Your task to perform on an android device: What is the news today? Image 0: 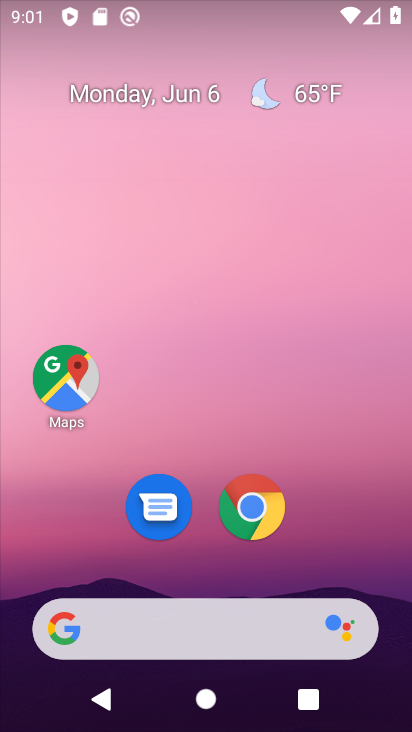
Step 0: drag from (279, 543) to (282, 196)
Your task to perform on an android device: What is the news today? Image 1: 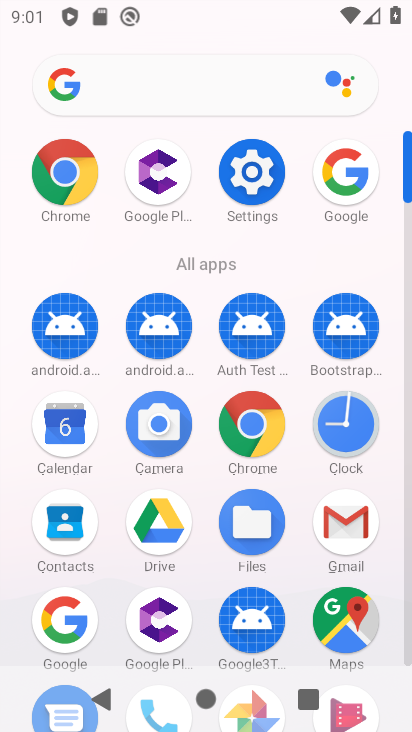
Step 1: click (57, 168)
Your task to perform on an android device: What is the news today? Image 2: 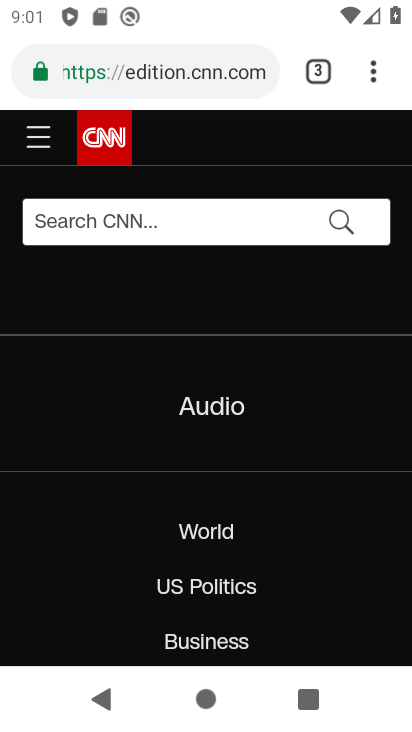
Step 2: click (371, 71)
Your task to perform on an android device: What is the news today? Image 3: 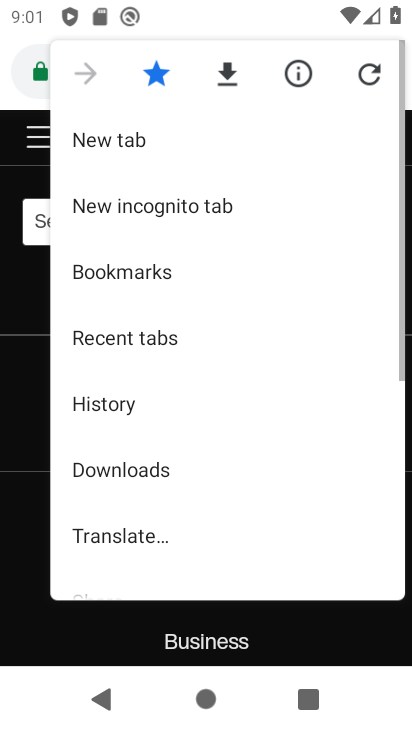
Step 3: click (121, 144)
Your task to perform on an android device: What is the news today? Image 4: 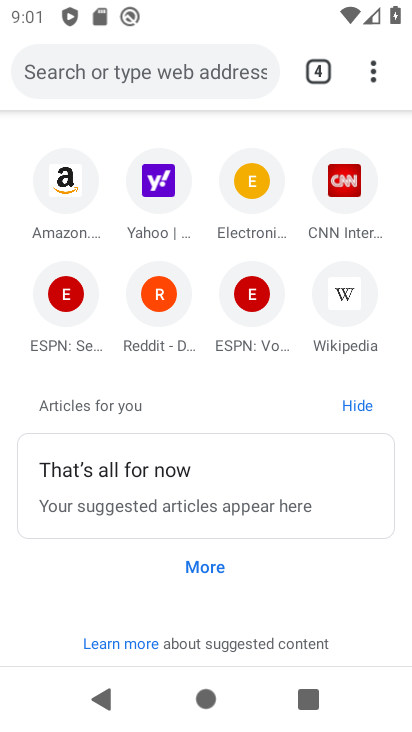
Step 4: click (140, 68)
Your task to perform on an android device: What is the news today? Image 5: 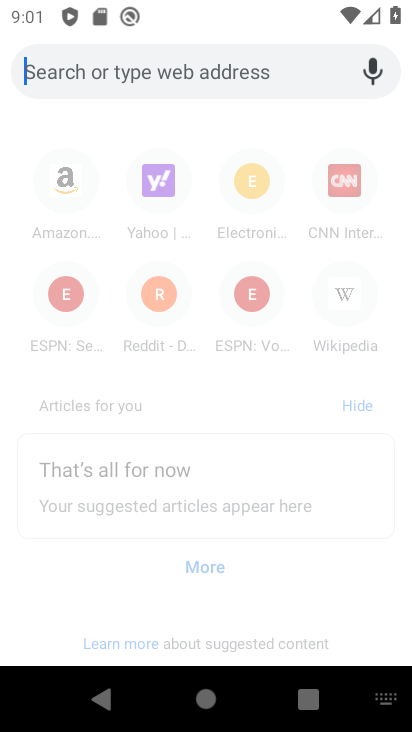
Step 5: type "What is the news today?"
Your task to perform on an android device: What is the news today? Image 6: 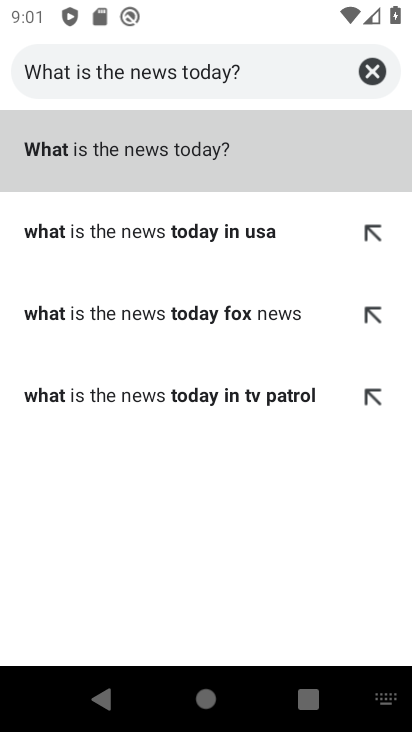
Step 6: click (90, 138)
Your task to perform on an android device: What is the news today? Image 7: 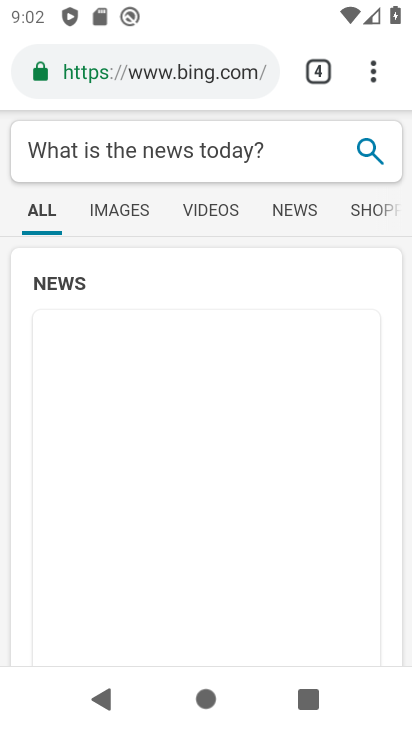
Step 7: task complete